Your task to perform on an android device: Open the stopwatch Image 0: 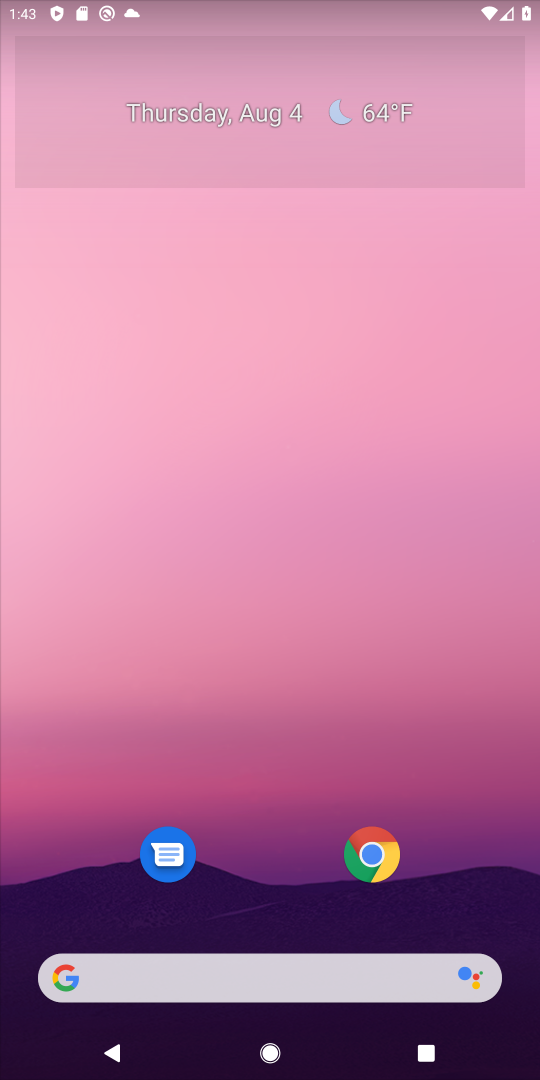
Step 0: drag from (332, 730) to (354, 242)
Your task to perform on an android device: Open the stopwatch Image 1: 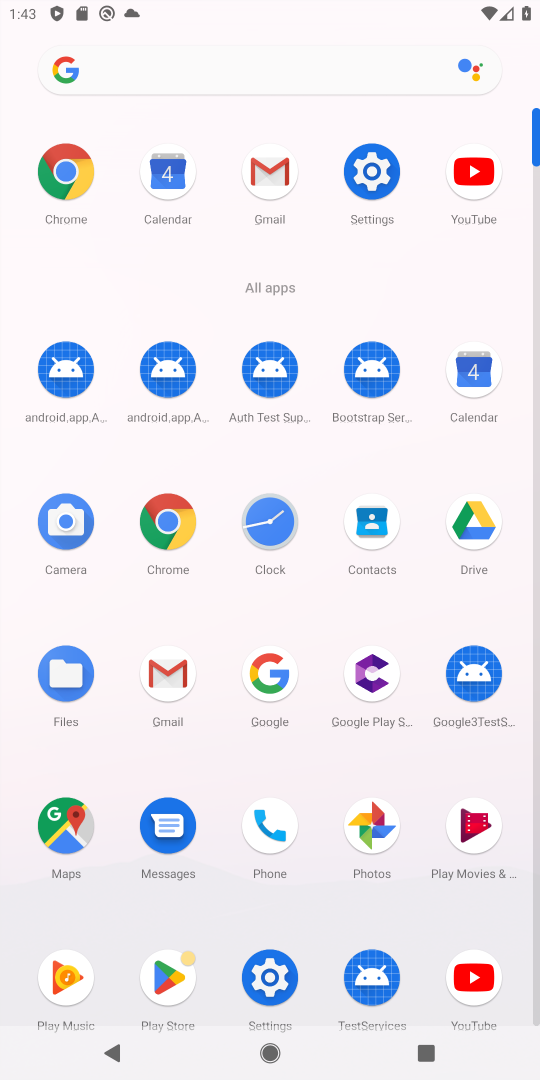
Step 1: click (276, 523)
Your task to perform on an android device: Open the stopwatch Image 2: 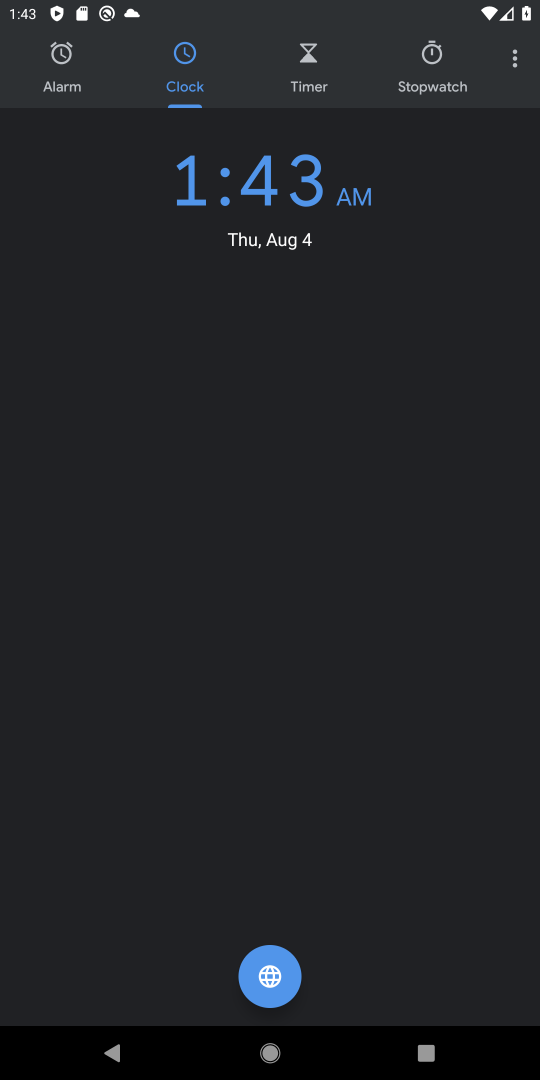
Step 2: task complete